Your task to perform on an android device: Turn off the flashlight Image 0: 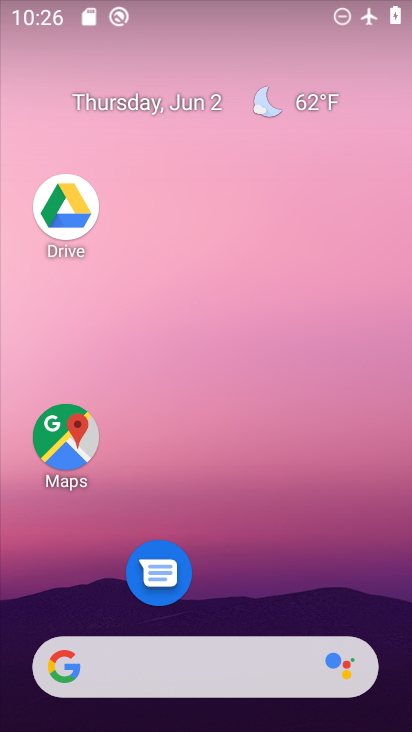
Step 0: drag from (219, 610) to (151, 126)
Your task to perform on an android device: Turn off the flashlight Image 1: 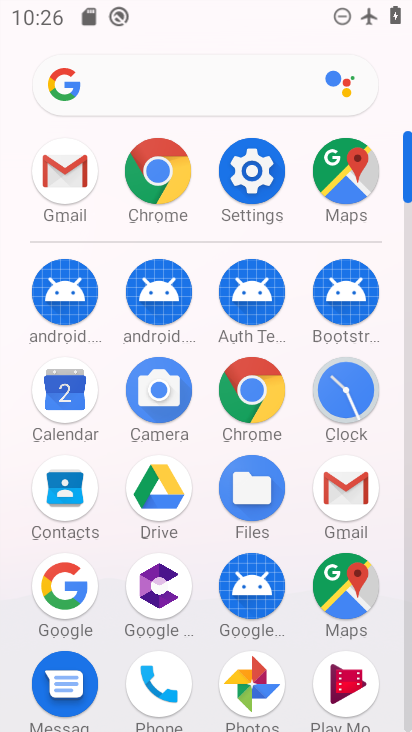
Step 1: click (225, 181)
Your task to perform on an android device: Turn off the flashlight Image 2: 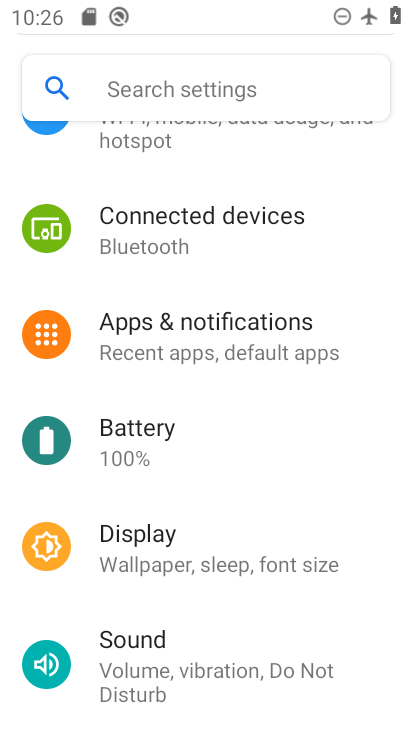
Step 2: task complete